Your task to perform on an android device: Open calendar and show me the third week of next month Image 0: 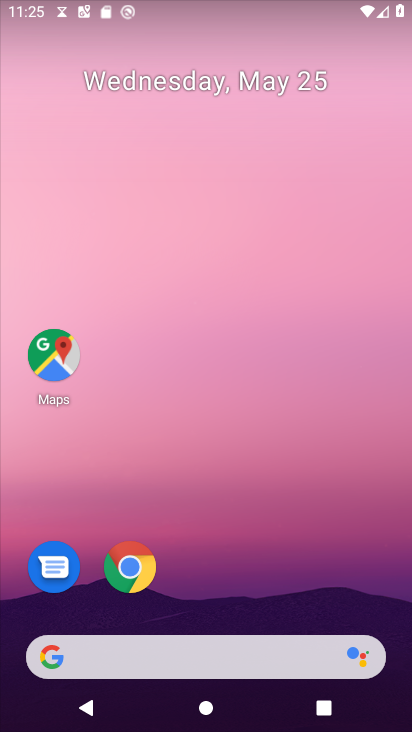
Step 0: drag from (256, 489) to (232, 58)
Your task to perform on an android device: Open calendar and show me the third week of next month Image 1: 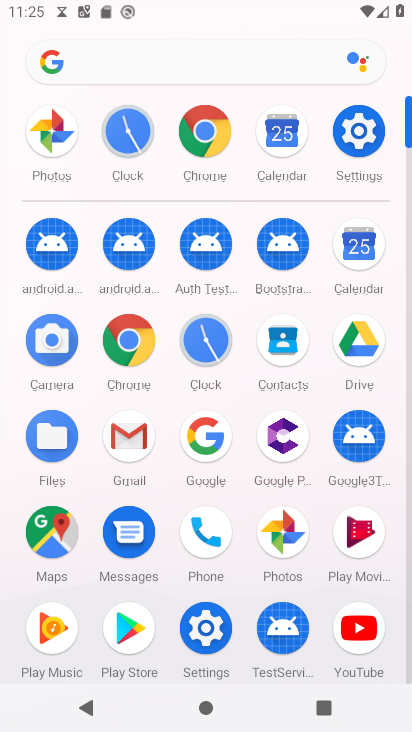
Step 1: click (278, 140)
Your task to perform on an android device: Open calendar and show me the third week of next month Image 2: 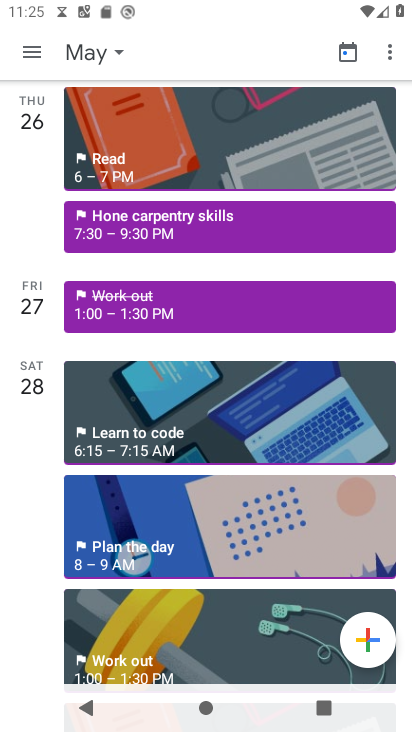
Step 2: drag from (194, 586) to (165, 156)
Your task to perform on an android device: Open calendar and show me the third week of next month Image 3: 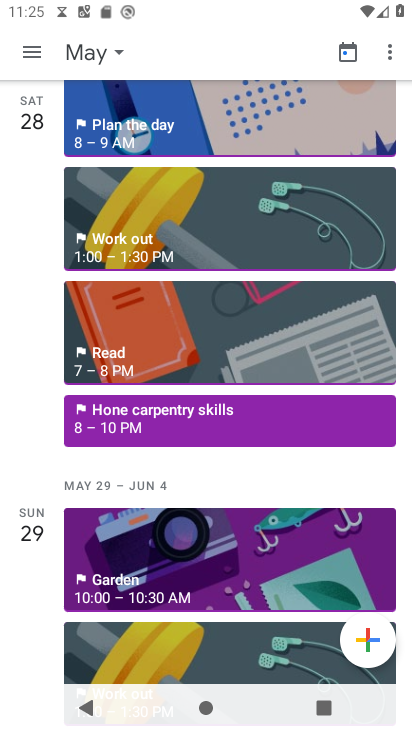
Step 3: drag from (200, 510) to (201, 124)
Your task to perform on an android device: Open calendar and show me the third week of next month Image 4: 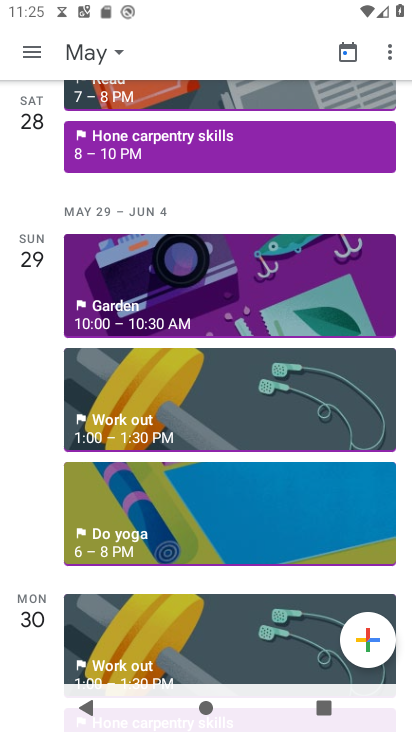
Step 4: click (86, 51)
Your task to perform on an android device: Open calendar and show me the third week of next month Image 5: 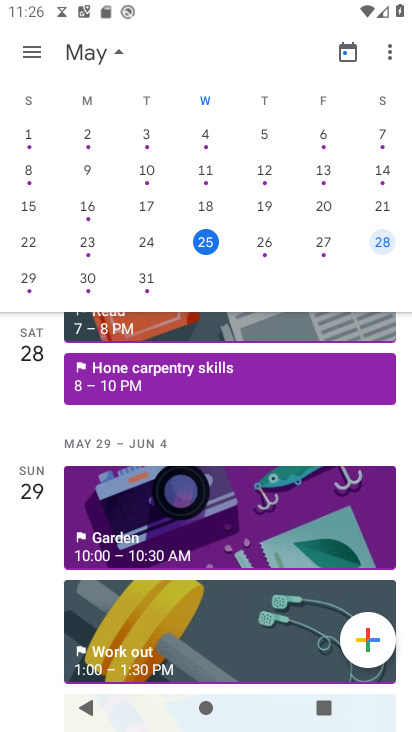
Step 5: task complete